Your task to perform on an android device: set the timer Image 0: 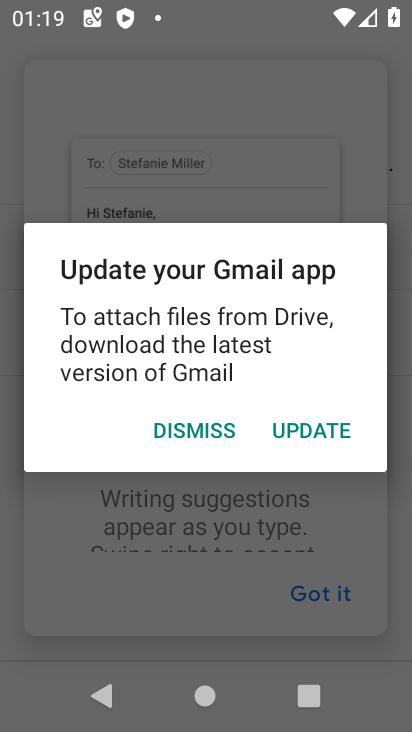
Step 0: press home button
Your task to perform on an android device: set the timer Image 1: 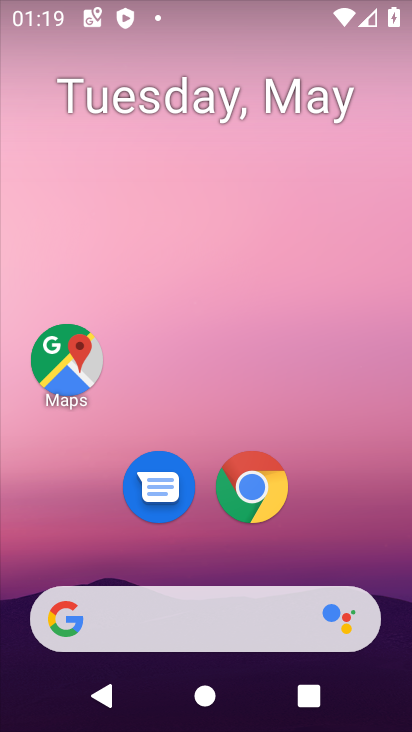
Step 1: drag from (271, 488) to (324, 138)
Your task to perform on an android device: set the timer Image 2: 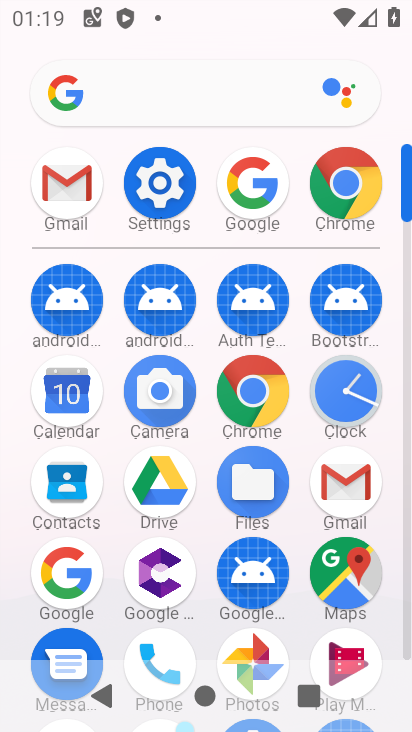
Step 2: click (339, 382)
Your task to perform on an android device: set the timer Image 3: 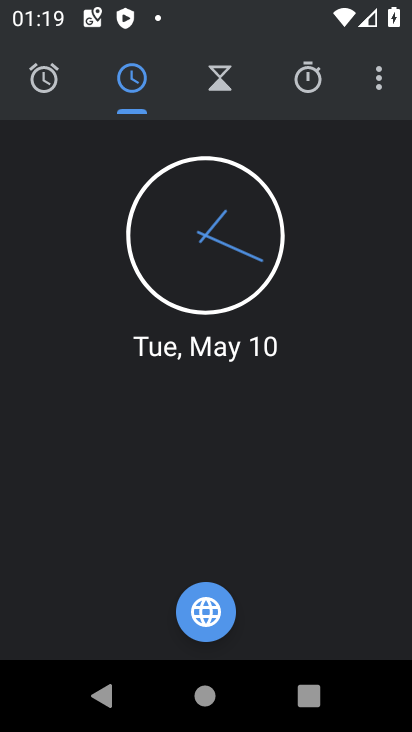
Step 3: click (381, 82)
Your task to perform on an android device: set the timer Image 4: 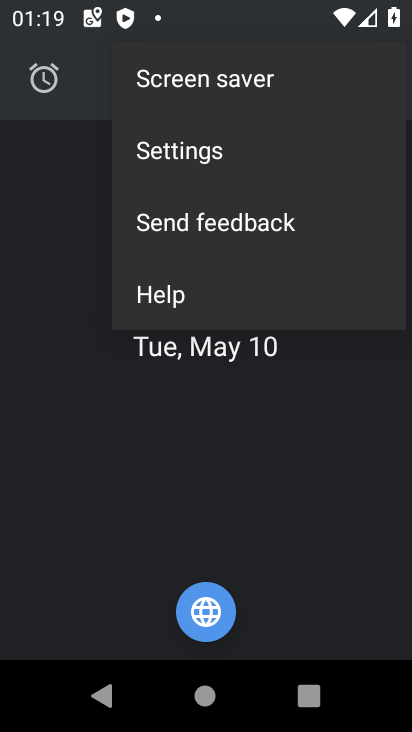
Step 4: click (44, 70)
Your task to perform on an android device: set the timer Image 5: 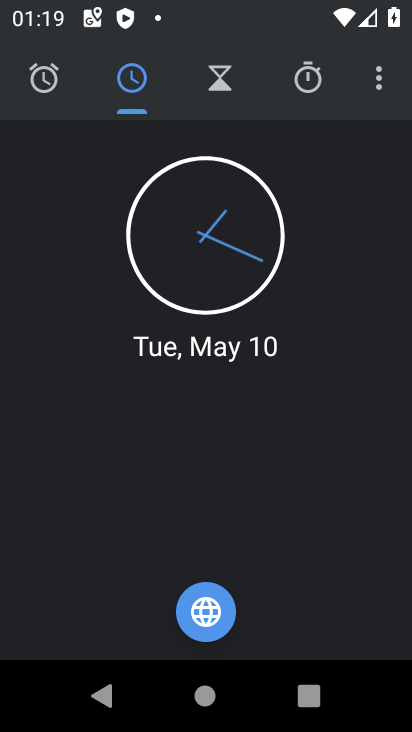
Step 5: click (45, 70)
Your task to perform on an android device: set the timer Image 6: 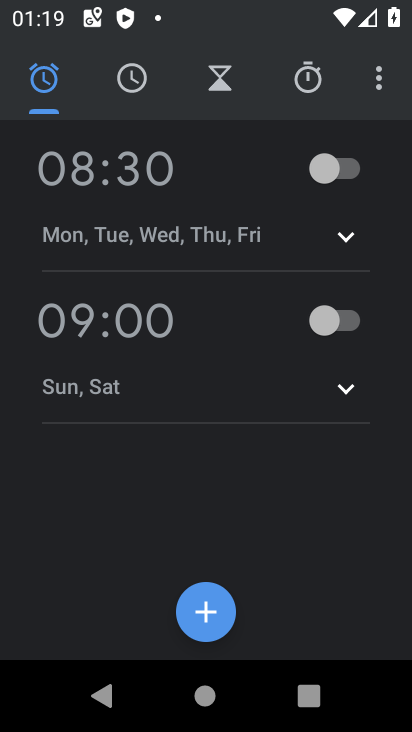
Step 6: click (216, 71)
Your task to perform on an android device: set the timer Image 7: 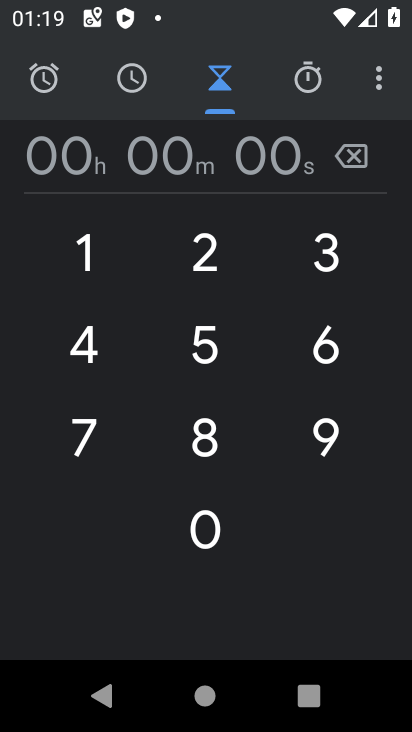
Step 7: click (310, 64)
Your task to perform on an android device: set the timer Image 8: 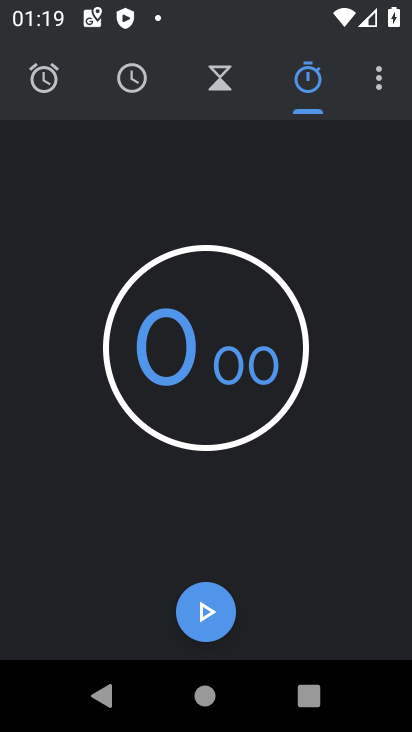
Step 8: click (223, 74)
Your task to perform on an android device: set the timer Image 9: 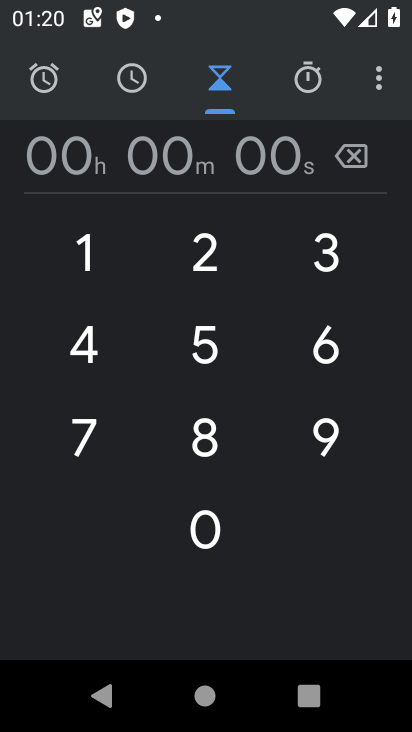
Step 9: click (83, 239)
Your task to perform on an android device: set the timer Image 10: 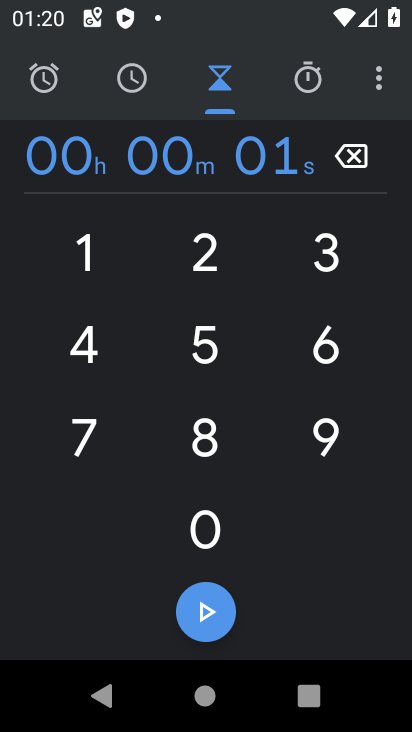
Step 10: click (220, 236)
Your task to perform on an android device: set the timer Image 11: 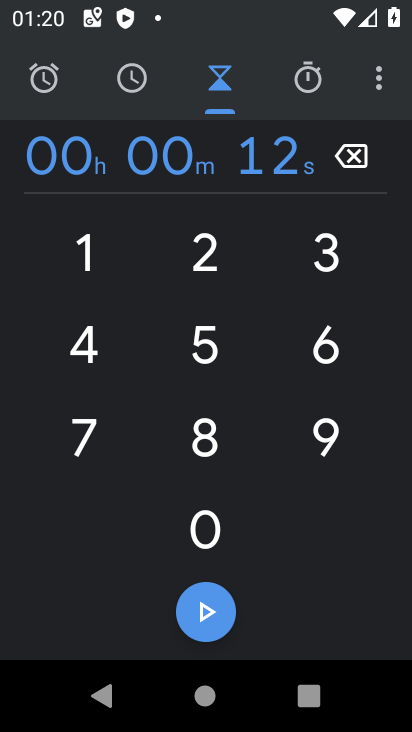
Step 11: click (344, 243)
Your task to perform on an android device: set the timer Image 12: 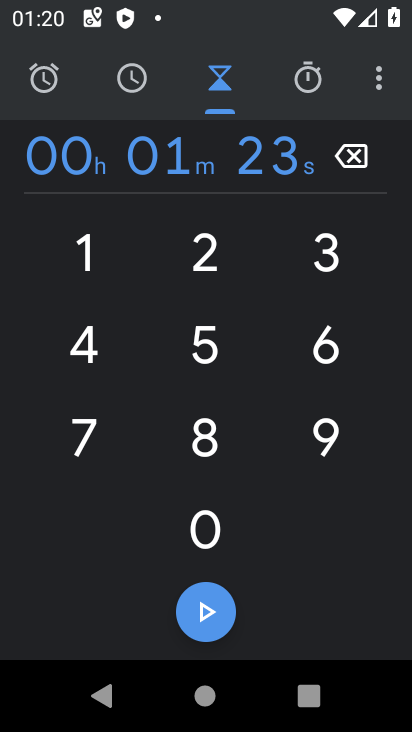
Step 12: click (211, 360)
Your task to perform on an android device: set the timer Image 13: 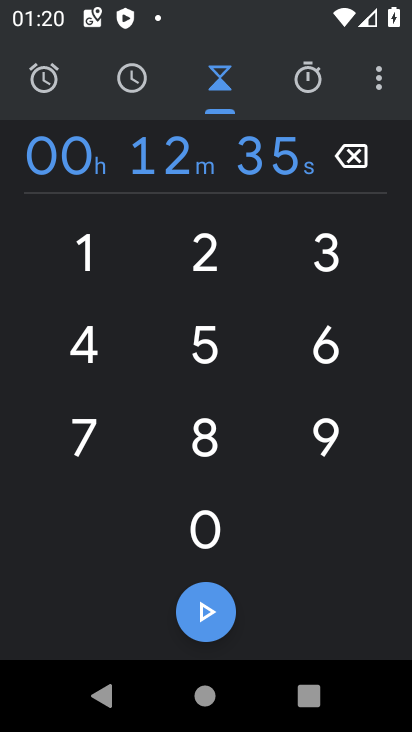
Step 13: click (108, 436)
Your task to perform on an android device: set the timer Image 14: 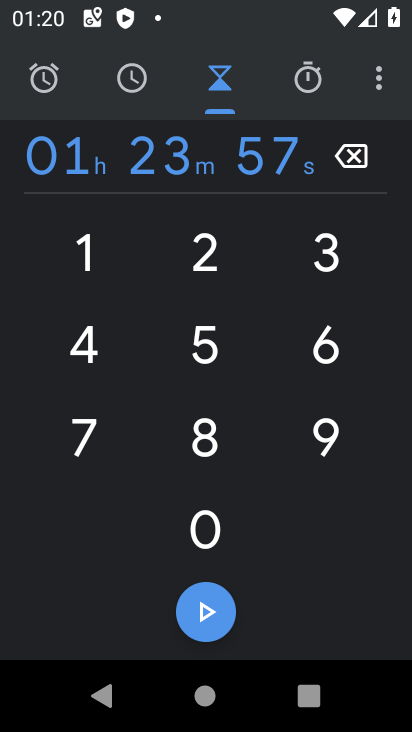
Step 14: click (198, 424)
Your task to perform on an android device: set the timer Image 15: 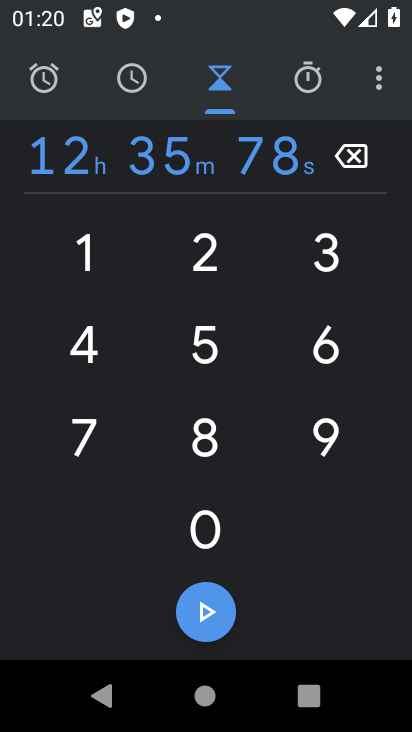
Step 15: click (211, 611)
Your task to perform on an android device: set the timer Image 16: 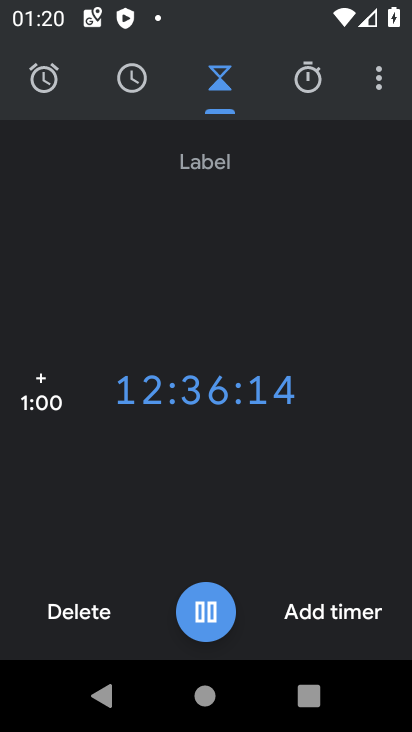
Step 16: task complete